Your task to perform on an android device: Go to notification settings Image 0: 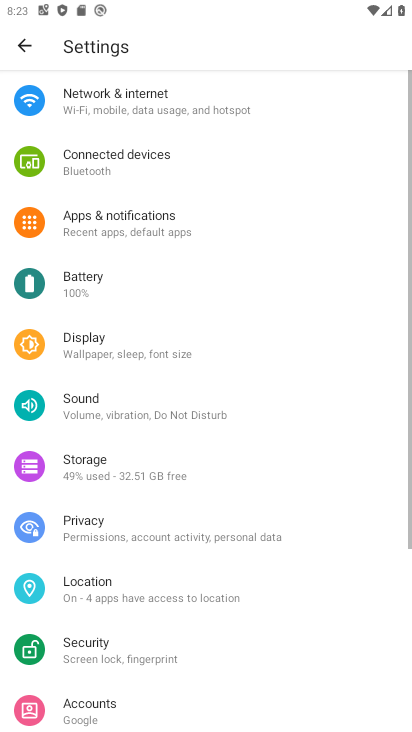
Step 0: drag from (311, 619) to (338, 311)
Your task to perform on an android device: Go to notification settings Image 1: 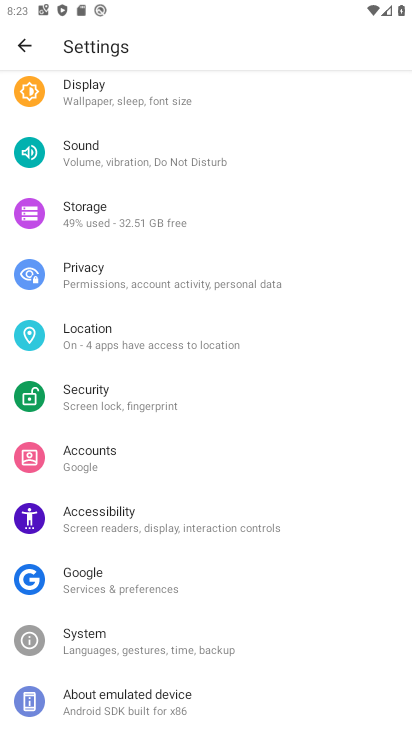
Step 1: drag from (346, 523) to (340, 287)
Your task to perform on an android device: Go to notification settings Image 2: 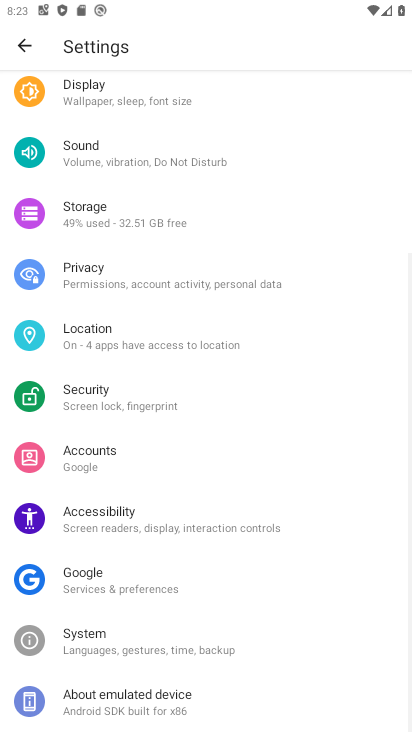
Step 2: drag from (353, 128) to (362, 302)
Your task to perform on an android device: Go to notification settings Image 3: 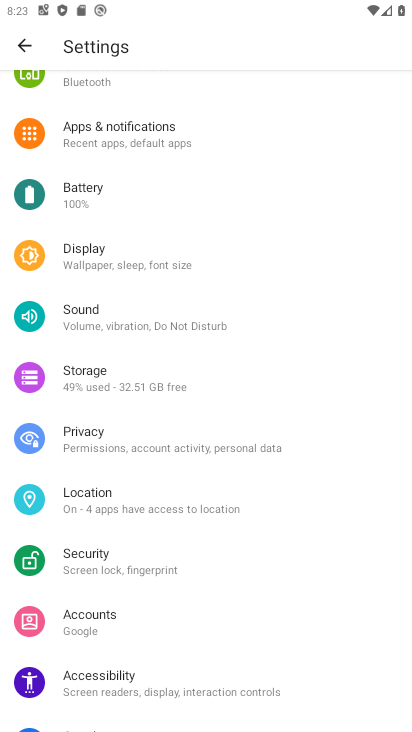
Step 3: drag from (333, 176) to (347, 328)
Your task to perform on an android device: Go to notification settings Image 4: 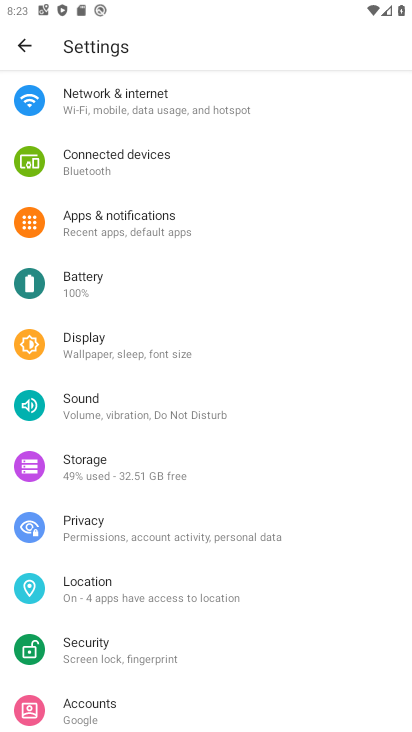
Step 4: drag from (343, 192) to (341, 335)
Your task to perform on an android device: Go to notification settings Image 5: 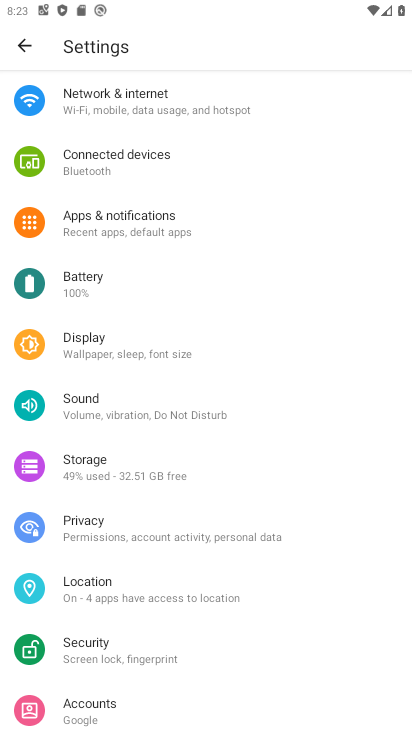
Step 5: click (162, 234)
Your task to perform on an android device: Go to notification settings Image 6: 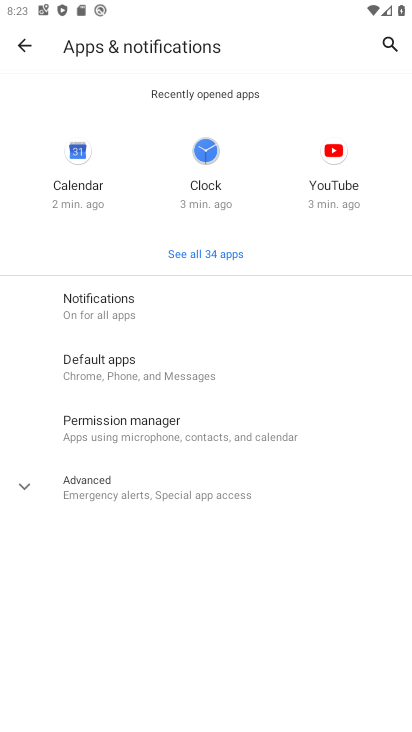
Step 6: click (178, 316)
Your task to perform on an android device: Go to notification settings Image 7: 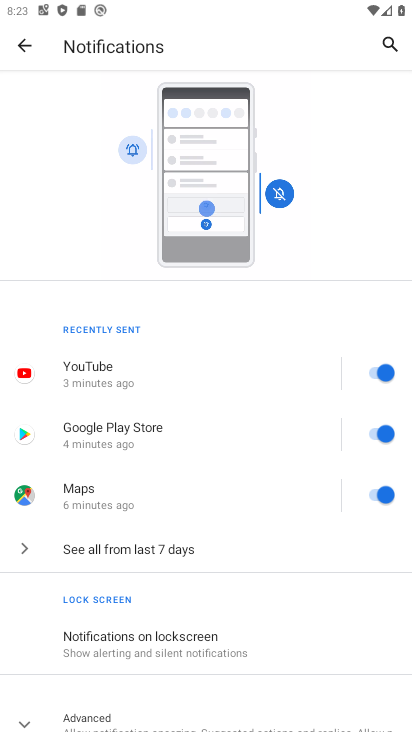
Step 7: drag from (229, 476) to (254, 349)
Your task to perform on an android device: Go to notification settings Image 8: 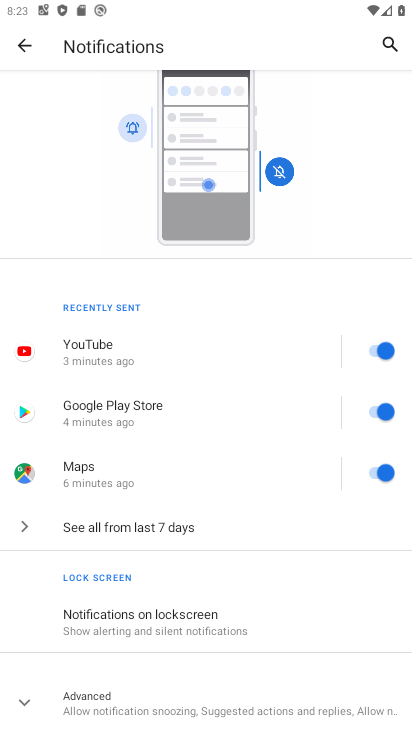
Step 8: click (222, 691)
Your task to perform on an android device: Go to notification settings Image 9: 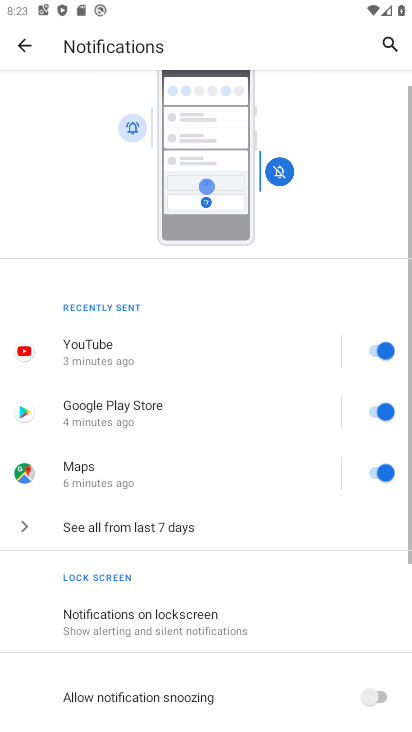
Step 9: task complete